Your task to perform on an android device: Search for "panasonic triple a" on bestbuy.com, select the first entry, and add it to the cart. Image 0: 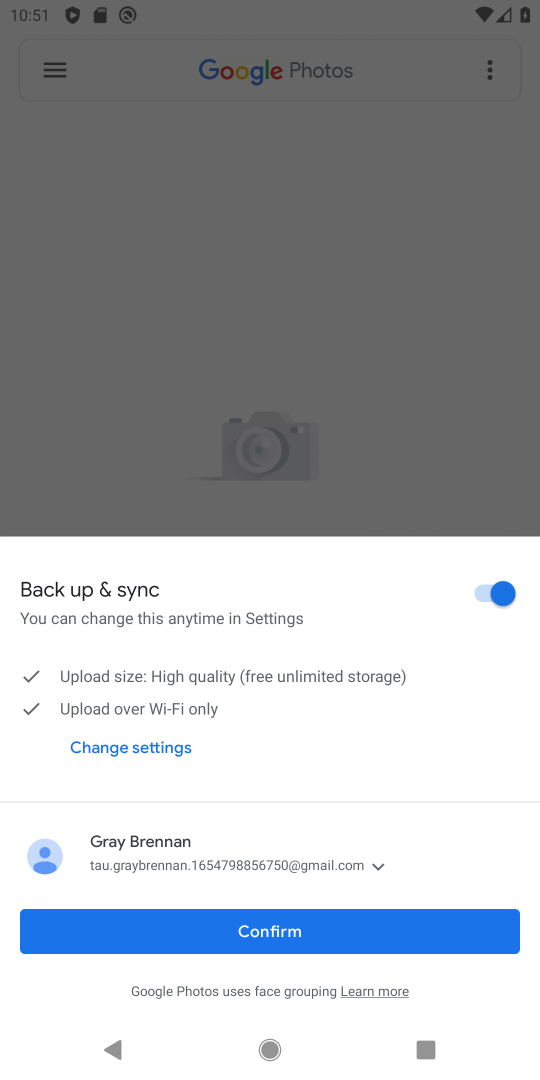
Step 0: press home button
Your task to perform on an android device: Search for "panasonic triple a" on bestbuy.com, select the first entry, and add it to the cart. Image 1: 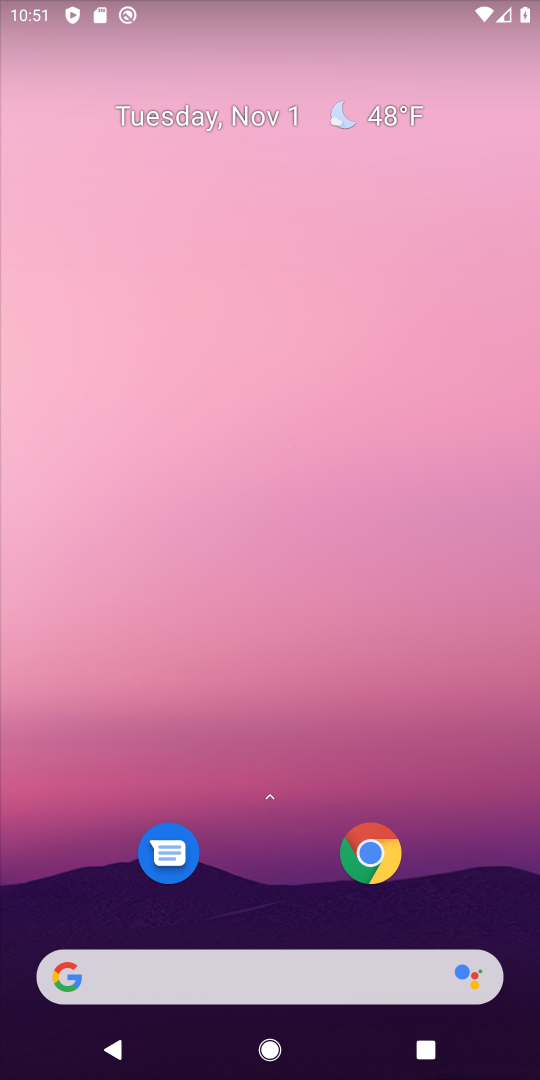
Step 1: drag from (312, 1028) to (196, 5)
Your task to perform on an android device: Search for "panasonic triple a" on bestbuy.com, select the first entry, and add it to the cart. Image 2: 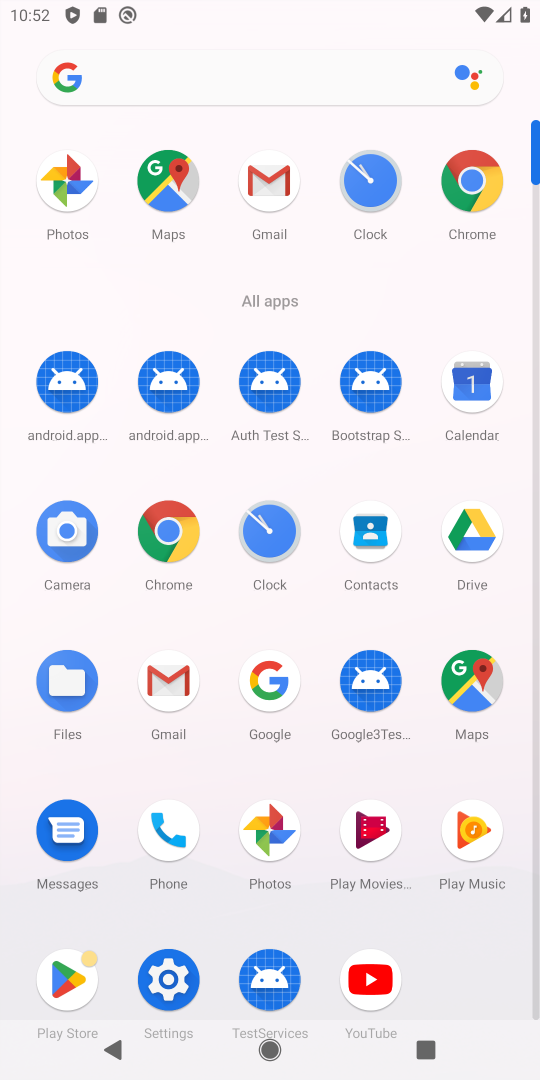
Step 2: click (161, 532)
Your task to perform on an android device: Search for "panasonic triple a" on bestbuy.com, select the first entry, and add it to the cart. Image 3: 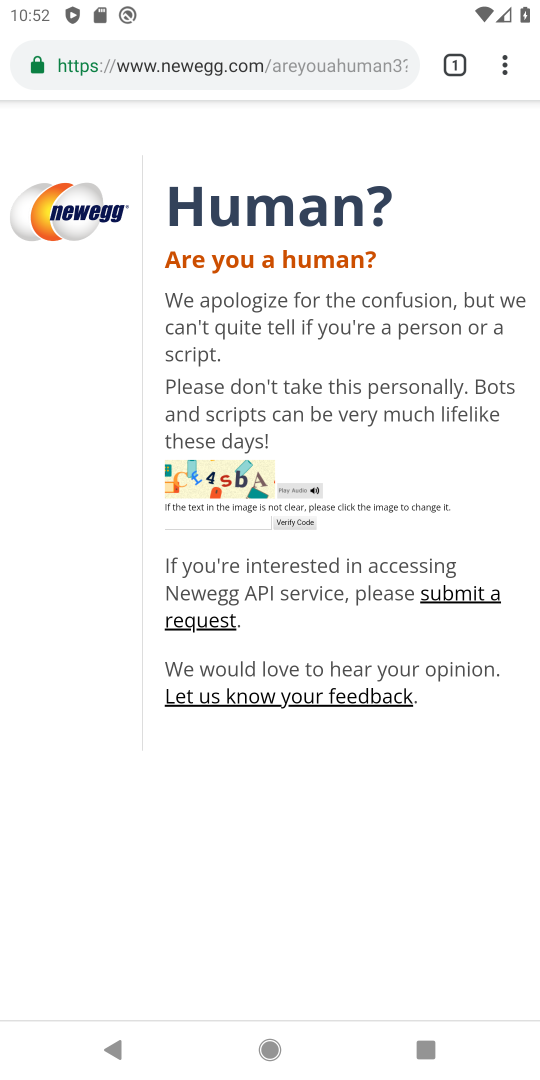
Step 3: click (197, 59)
Your task to perform on an android device: Search for "panasonic triple a" on bestbuy.com, select the first entry, and add it to the cart. Image 4: 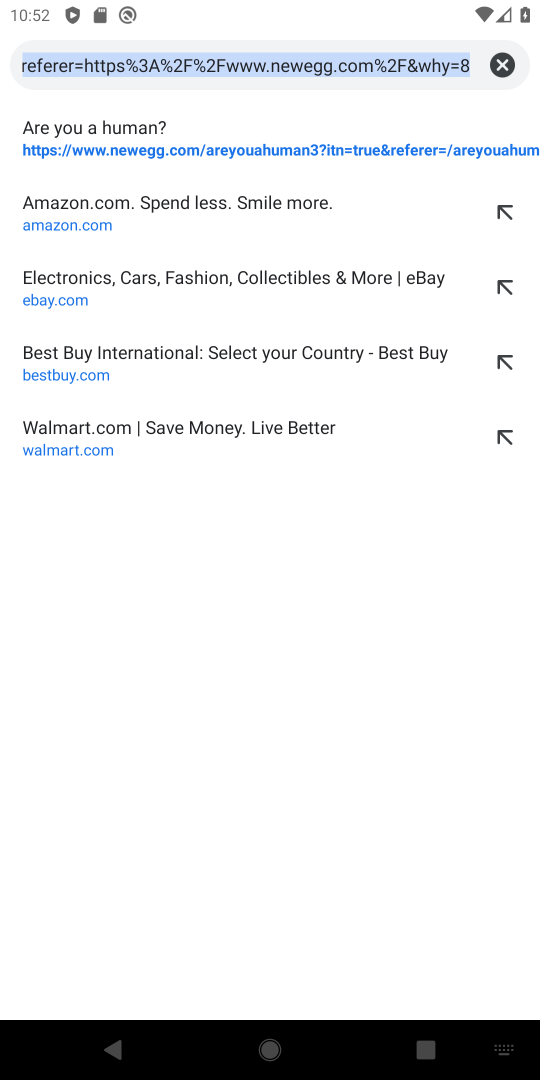
Step 4: click (497, 64)
Your task to perform on an android device: Search for "panasonic triple a" on bestbuy.com, select the first entry, and add it to the cart. Image 5: 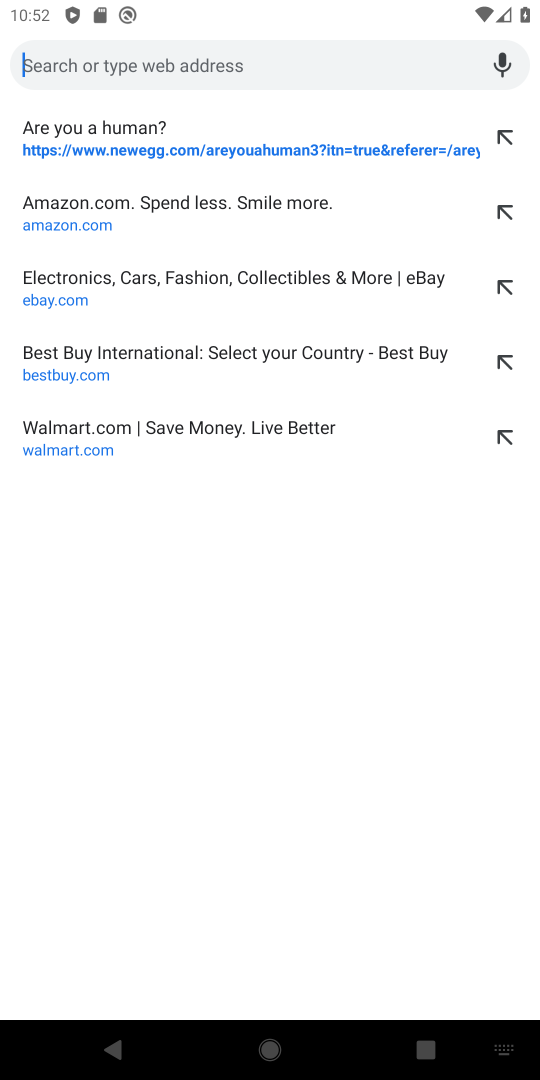
Step 5: type "bestbuy.com"
Your task to perform on an android device: Search for "panasonic triple a" on bestbuy.com, select the first entry, and add it to the cart. Image 6: 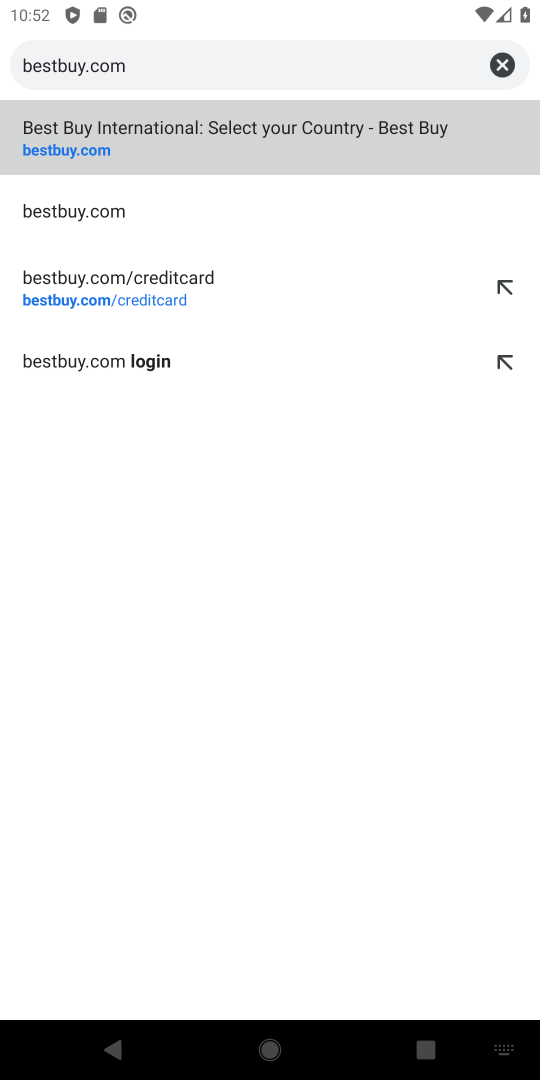
Step 6: click (72, 146)
Your task to perform on an android device: Search for "panasonic triple a" on bestbuy.com, select the first entry, and add it to the cart. Image 7: 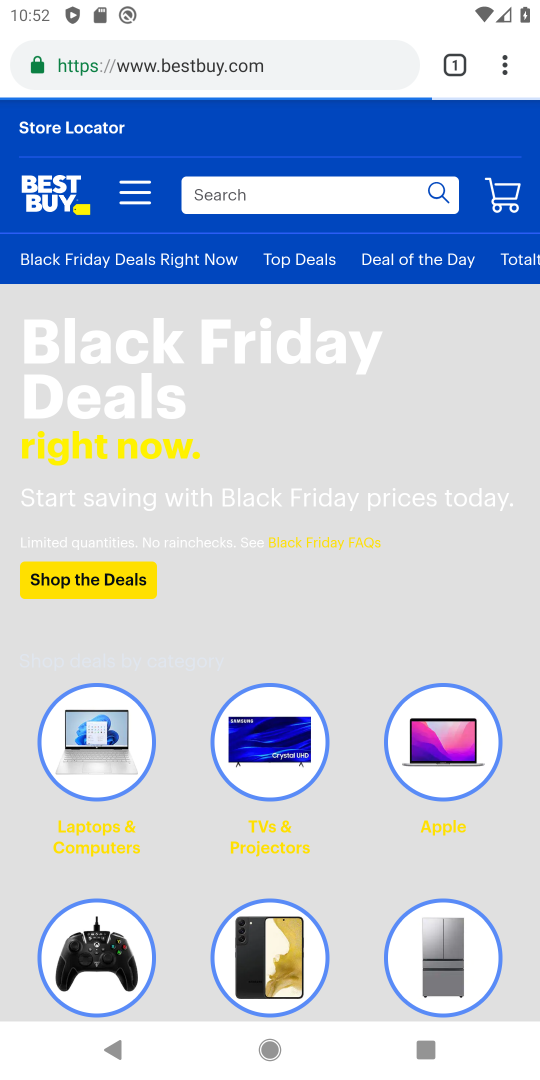
Step 7: click (264, 195)
Your task to perform on an android device: Search for "panasonic triple a" on bestbuy.com, select the first entry, and add it to the cart. Image 8: 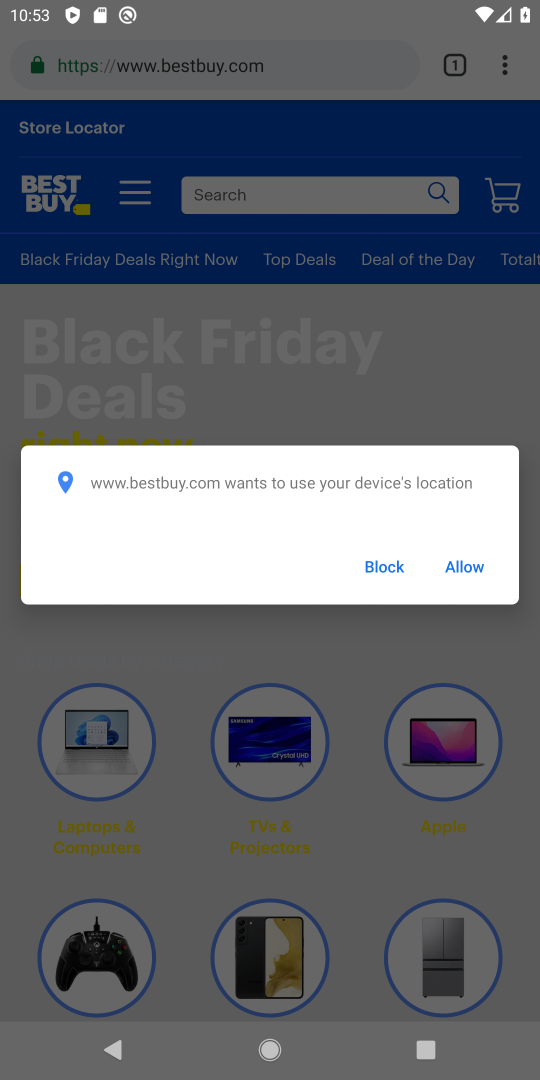
Step 8: click (459, 571)
Your task to perform on an android device: Search for "panasonic triple a" on bestbuy.com, select the first entry, and add it to the cart. Image 9: 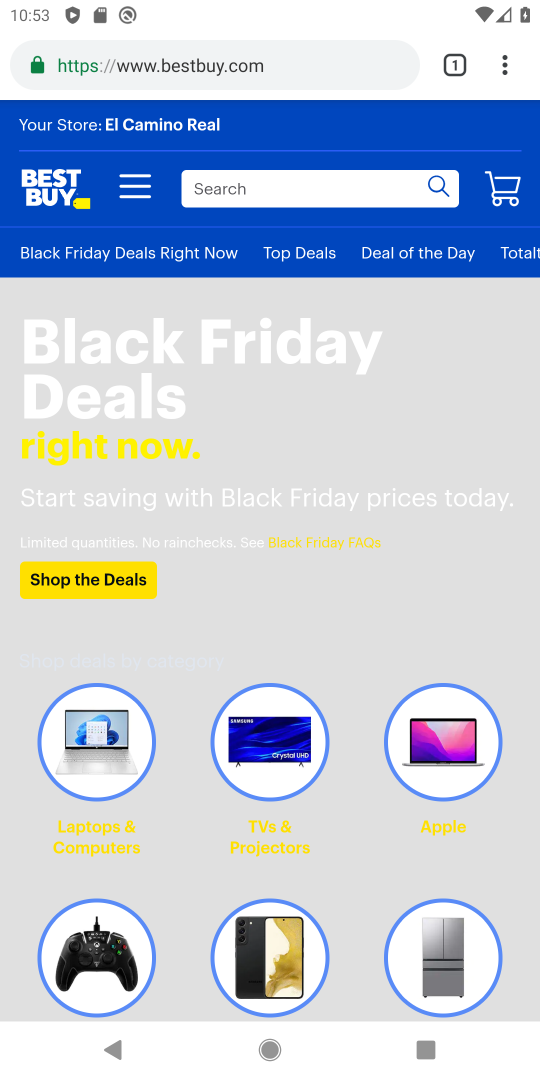
Step 9: click (199, 179)
Your task to perform on an android device: Search for "panasonic triple a" on bestbuy.com, select the first entry, and add it to the cart. Image 10: 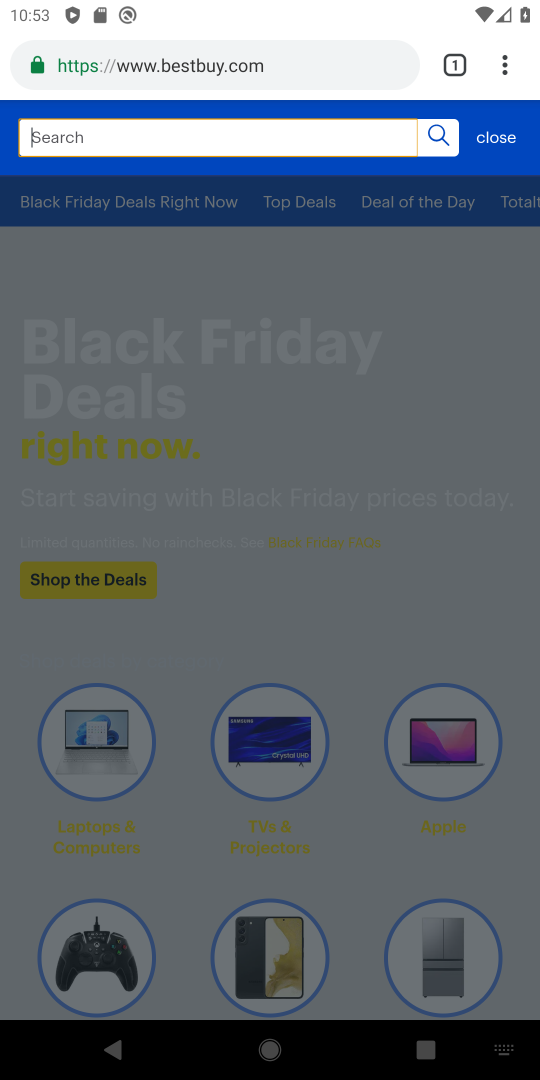
Step 10: type "panasonic triple a"
Your task to perform on an android device: Search for "panasonic triple a" on bestbuy.com, select the first entry, and add it to the cart. Image 11: 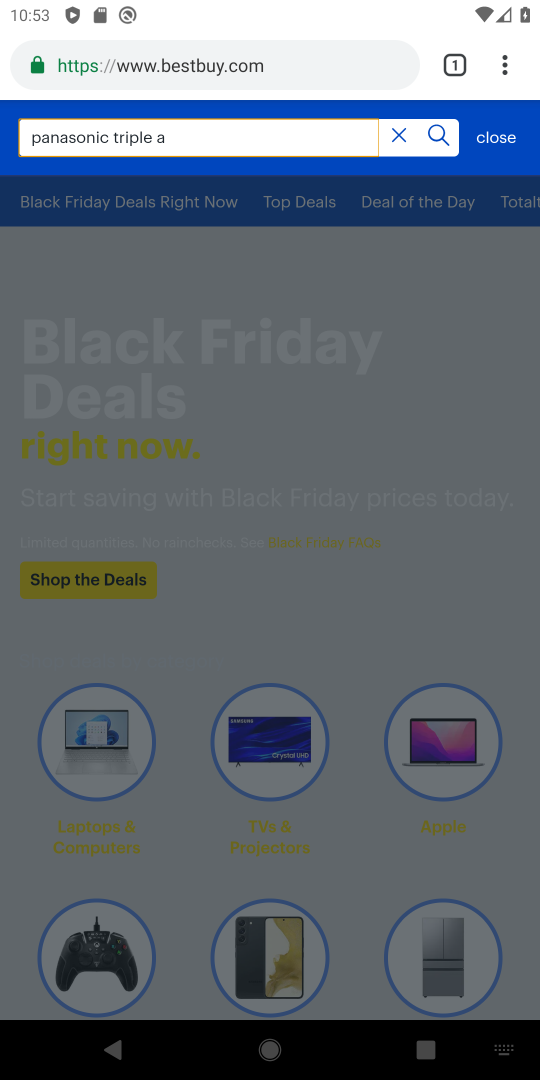
Step 11: click (433, 126)
Your task to perform on an android device: Search for "panasonic triple a" on bestbuy.com, select the first entry, and add it to the cart. Image 12: 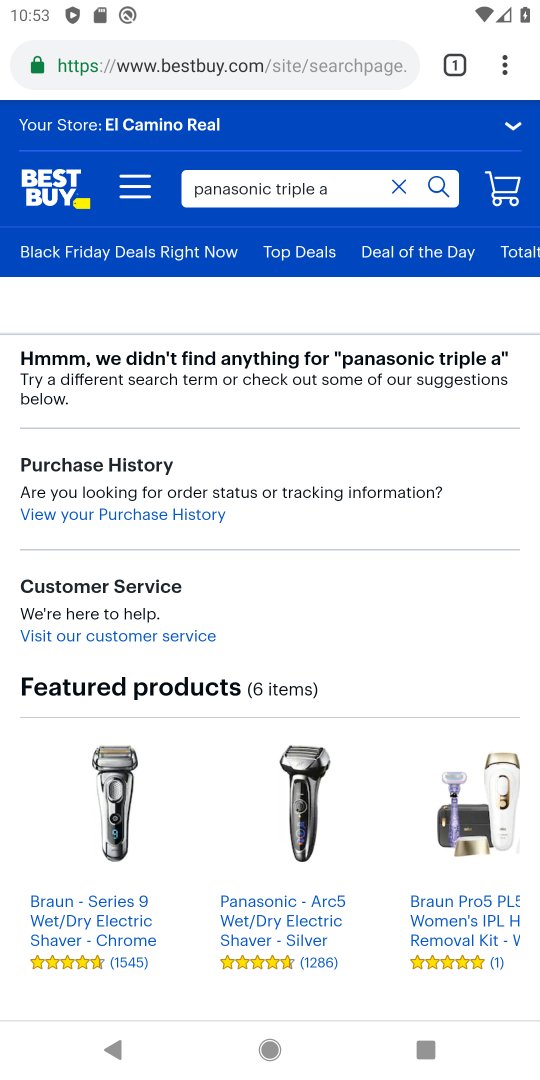
Step 12: click (94, 786)
Your task to perform on an android device: Search for "panasonic triple a" on bestbuy.com, select the first entry, and add it to the cart. Image 13: 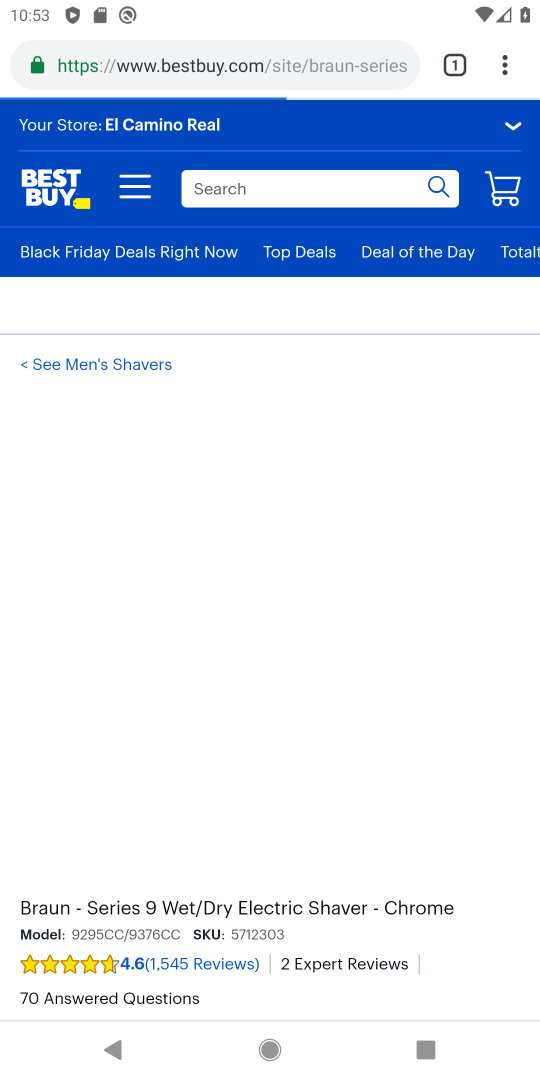
Step 13: task complete